Your task to perform on an android device: turn off notifications settings in the gmail app Image 0: 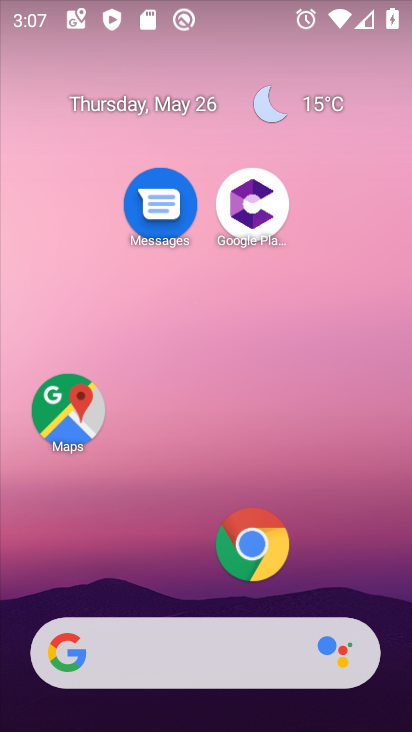
Step 0: drag from (159, 584) to (200, 70)
Your task to perform on an android device: turn off notifications settings in the gmail app Image 1: 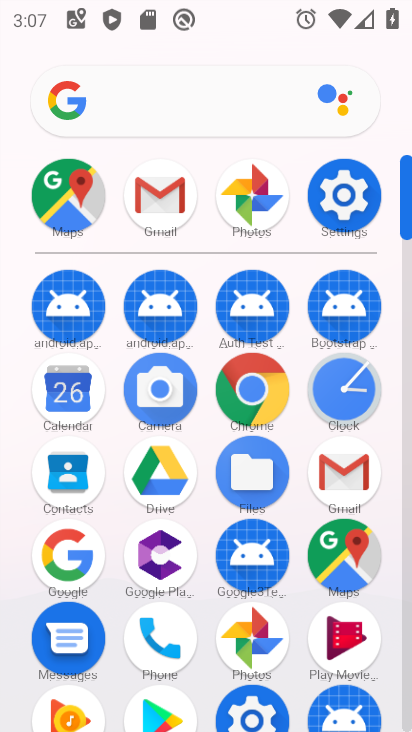
Step 1: click (346, 181)
Your task to perform on an android device: turn off notifications settings in the gmail app Image 2: 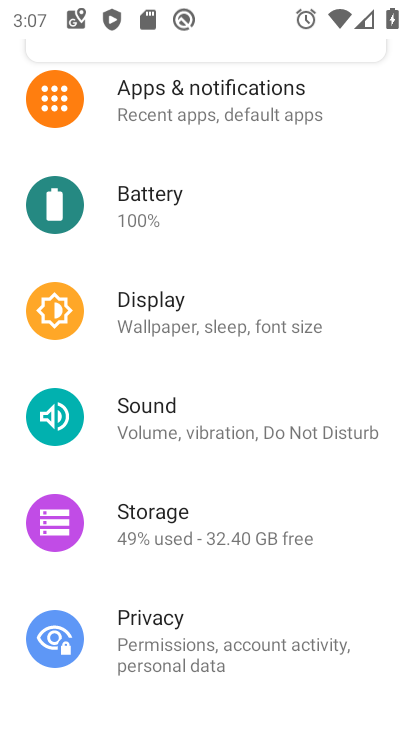
Step 2: click (177, 108)
Your task to perform on an android device: turn off notifications settings in the gmail app Image 3: 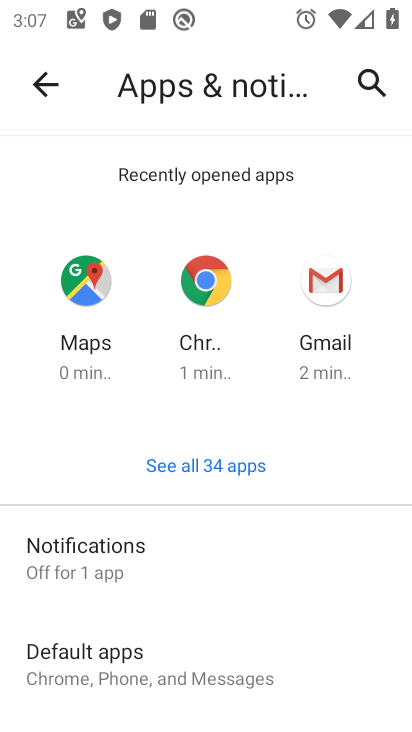
Step 3: click (323, 291)
Your task to perform on an android device: turn off notifications settings in the gmail app Image 4: 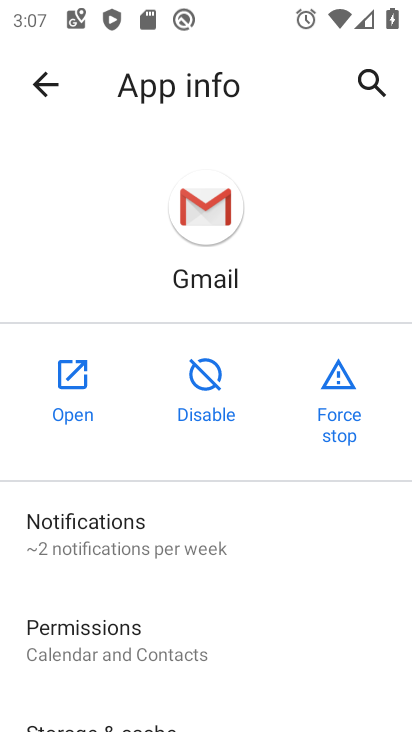
Step 4: click (126, 518)
Your task to perform on an android device: turn off notifications settings in the gmail app Image 5: 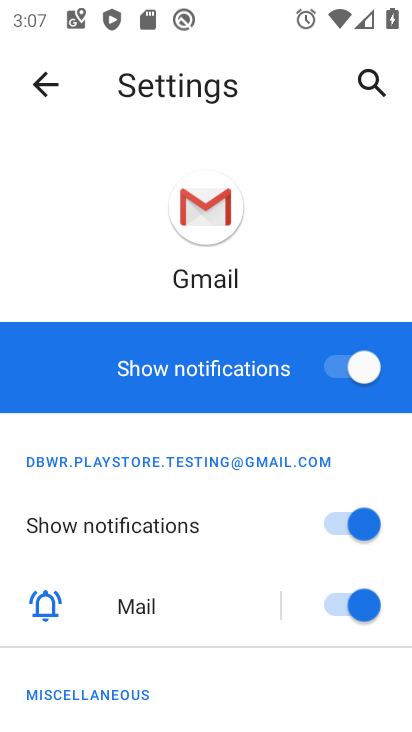
Step 5: click (351, 373)
Your task to perform on an android device: turn off notifications settings in the gmail app Image 6: 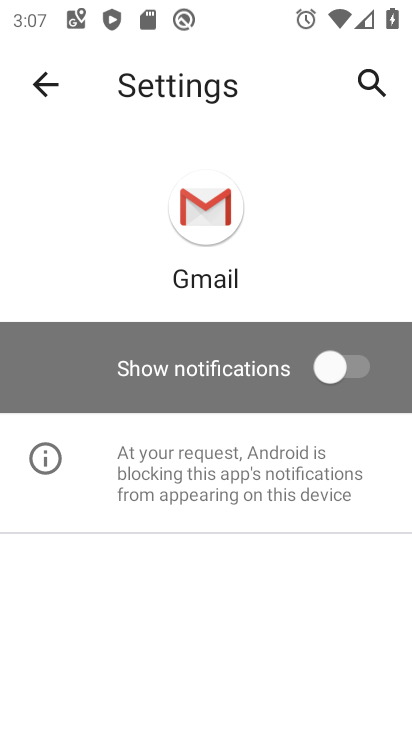
Step 6: task complete